Your task to perform on an android device: Search for Italian restaurants on Maps Image 0: 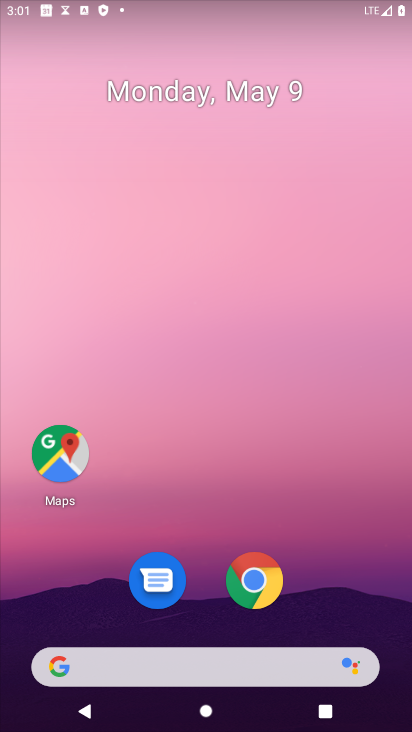
Step 0: click (48, 445)
Your task to perform on an android device: Search for Italian restaurants on Maps Image 1: 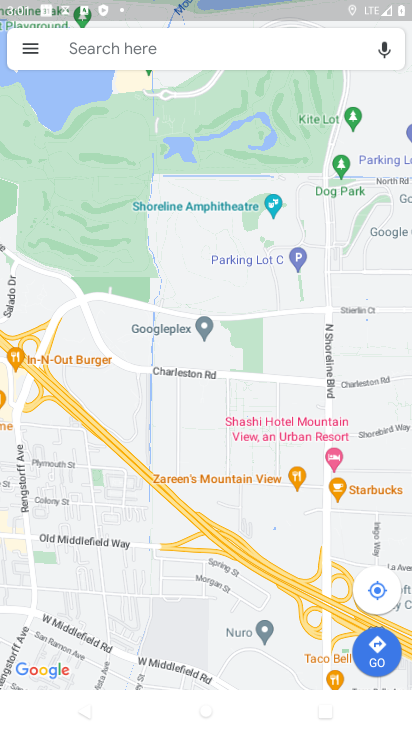
Step 1: click (181, 49)
Your task to perform on an android device: Search for Italian restaurants on Maps Image 2: 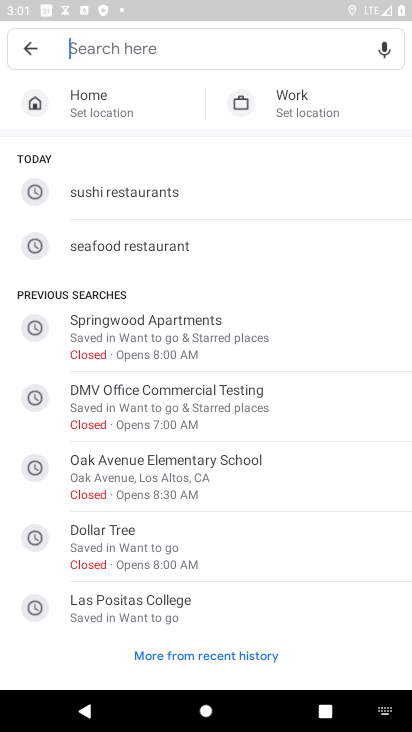
Step 2: type "italian restaurants"
Your task to perform on an android device: Search for Italian restaurants on Maps Image 3: 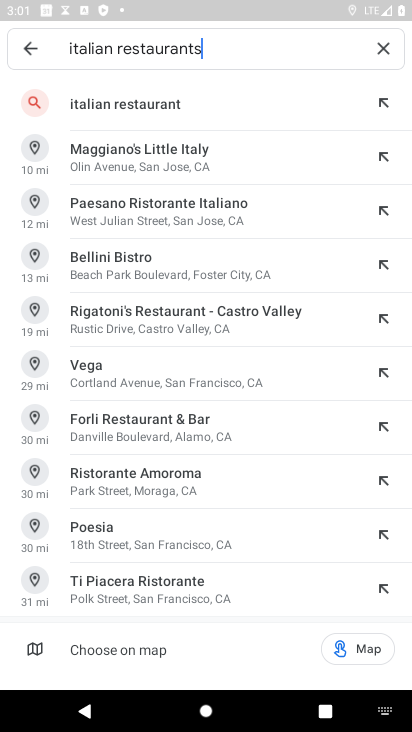
Step 3: click (140, 110)
Your task to perform on an android device: Search for Italian restaurants on Maps Image 4: 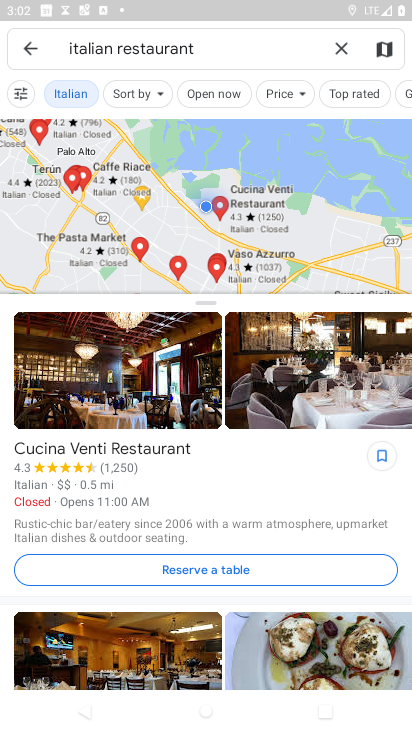
Step 4: task complete